Your task to perform on an android device: turn on javascript in the chrome app Image 0: 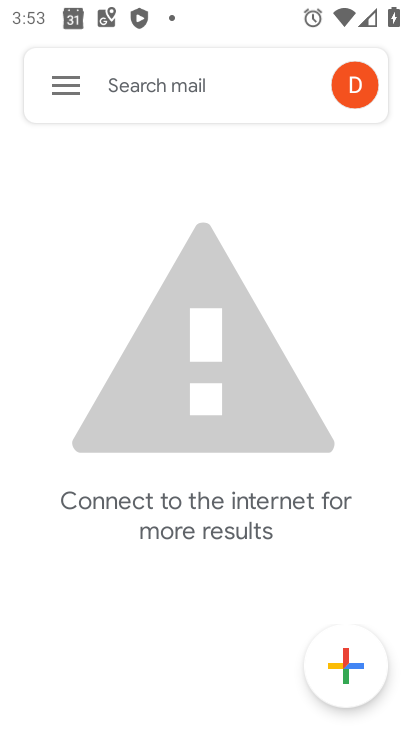
Step 0: press home button
Your task to perform on an android device: turn on javascript in the chrome app Image 1: 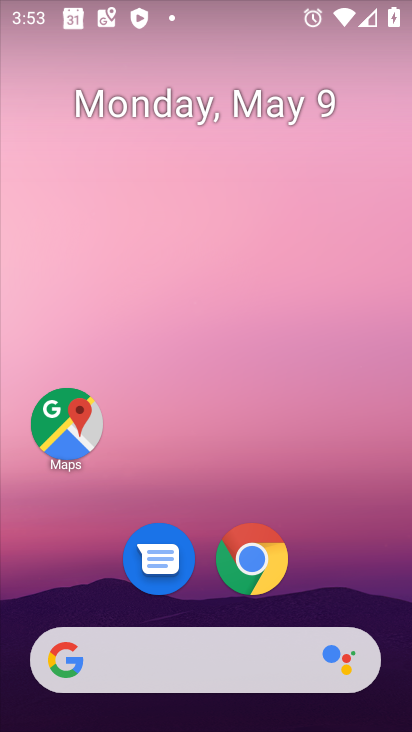
Step 1: click (251, 566)
Your task to perform on an android device: turn on javascript in the chrome app Image 2: 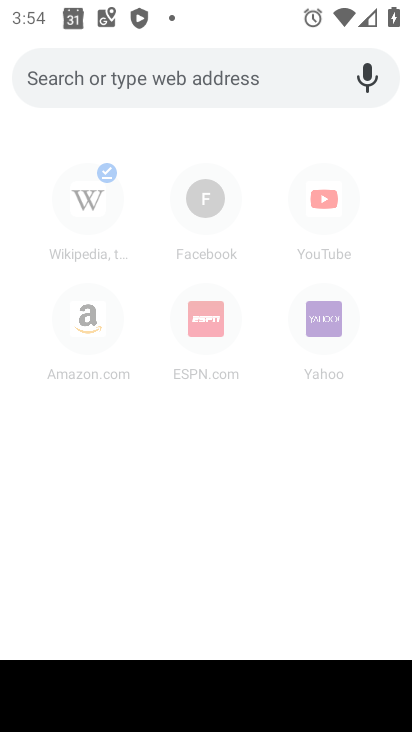
Step 2: click (253, 503)
Your task to perform on an android device: turn on javascript in the chrome app Image 3: 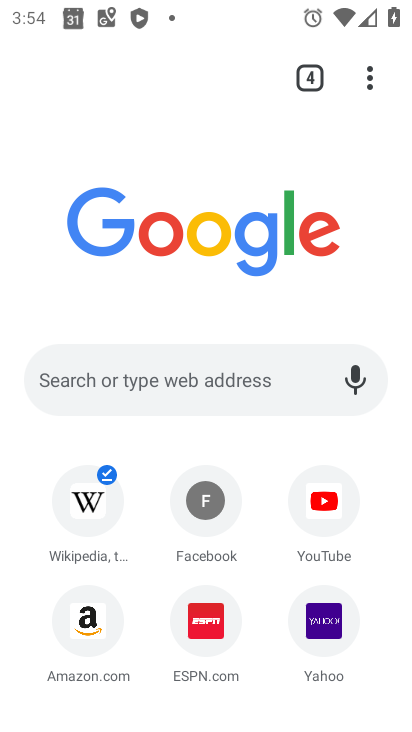
Step 3: click (370, 88)
Your task to perform on an android device: turn on javascript in the chrome app Image 4: 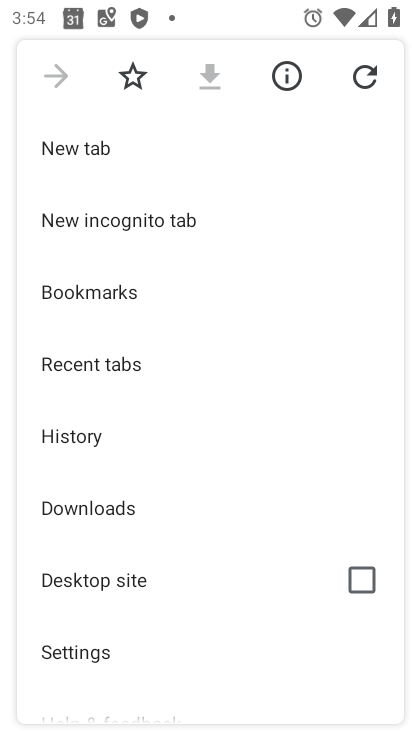
Step 4: click (80, 649)
Your task to perform on an android device: turn on javascript in the chrome app Image 5: 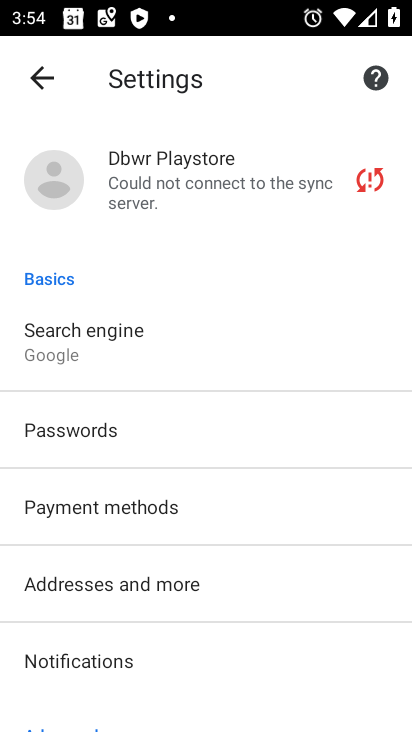
Step 5: drag from (168, 667) to (185, 302)
Your task to perform on an android device: turn on javascript in the chrome app Image 6: 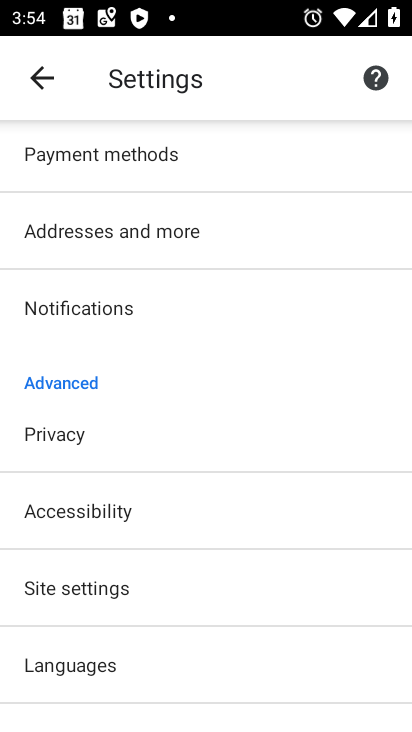
Step 6: click (94, 586)
Your task to perform on an android device: turn on javascript in the chrome app Image 7: 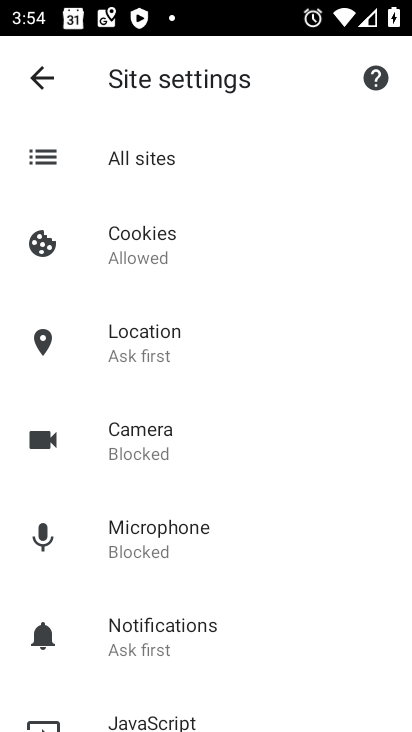
Step 7: drag from (219, 697) to (245, 445)
Your task to perform on an android device: turn on javascript in the chrome app Image 8: 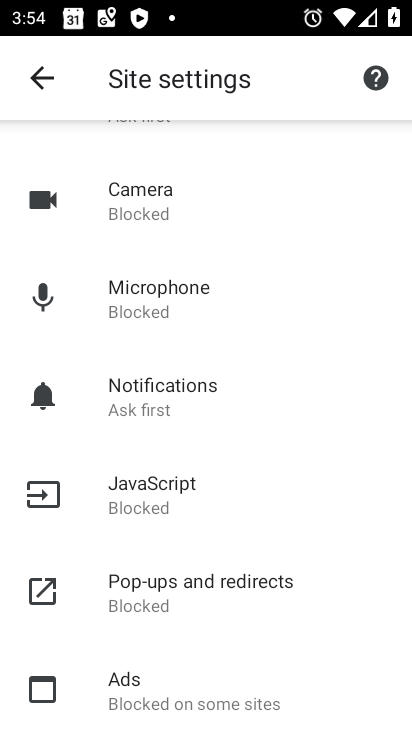
Step 8: click (182, 522)
Your task to perform on an android device: turn on javascript in the chrome app Image 9: 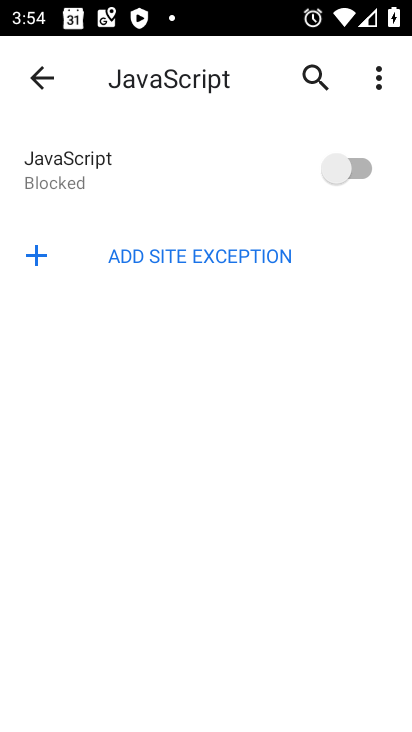
Step 9: click (363, 167)
Your task to perform on an android device: turn on javascript in the chrome app Image 10: 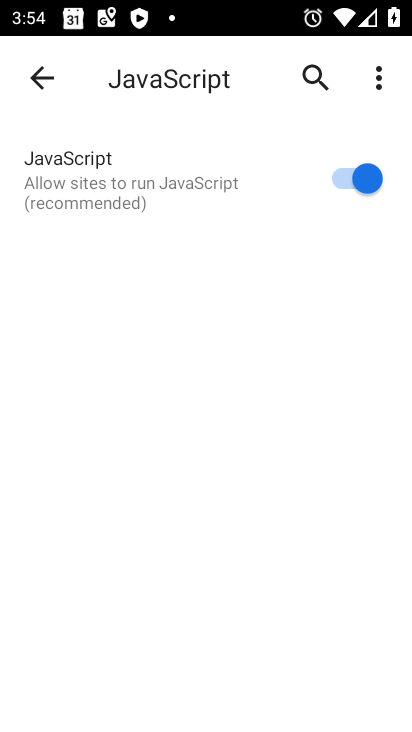
Step 10: task complete